Your task to perform on an android device: What's the weather going to be this weekend? Image 0: 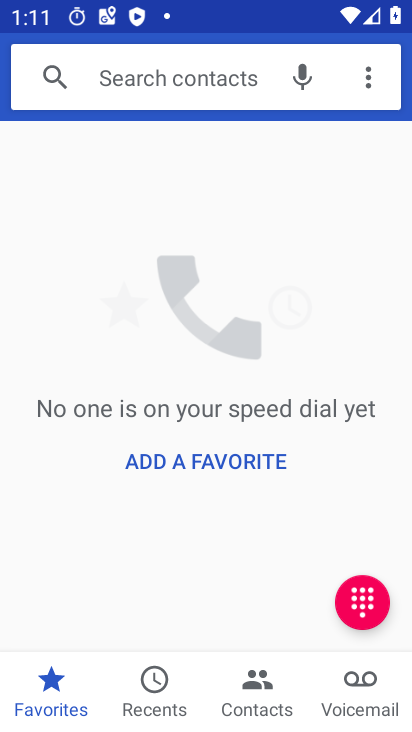
Step 0: press home button
Your task to perform on an android device: What's the weather going to be this weekend? Image 1: 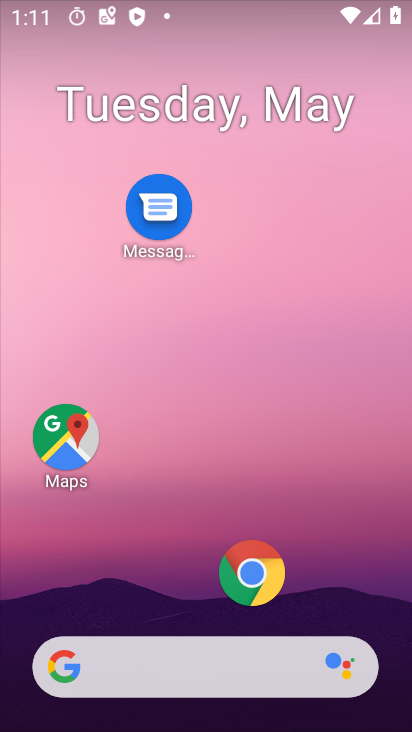
Step 1: drag from (193, 578) to (348, 15)
Your task to perform on an android device: What's the weather going to be this weekend? Image 2: 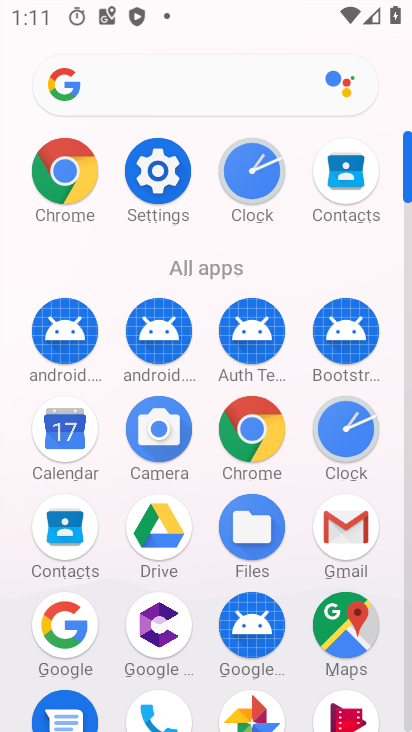
Step 2: click (205, 87)
Your task to perform on an android device: What's the weather going to be this weekend? Image 3: 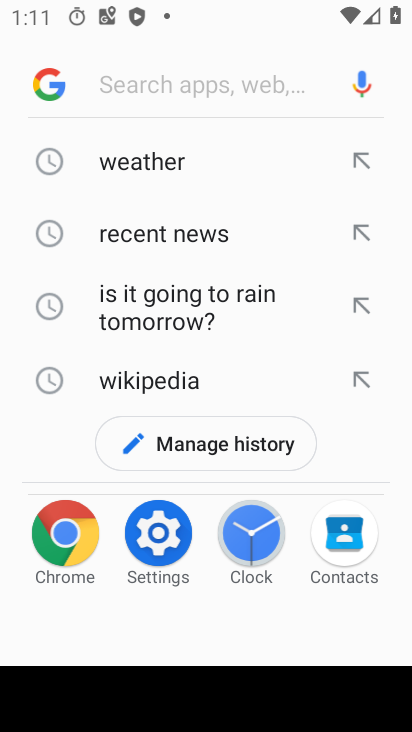
Step 3: click (151, 165)
Your task to perform on an android device: What's the weather going to be this weekend? Image 4: 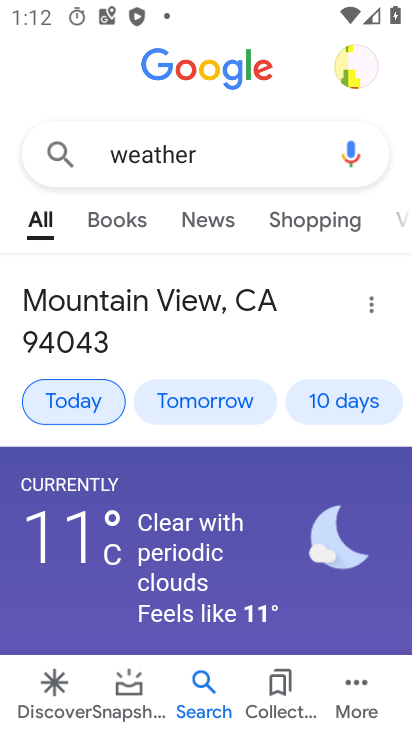
Step 4: drag from (217, 315) to (306, 6)
Your task to perform on an android device: What's the weather going to be this weekend? Image 5: 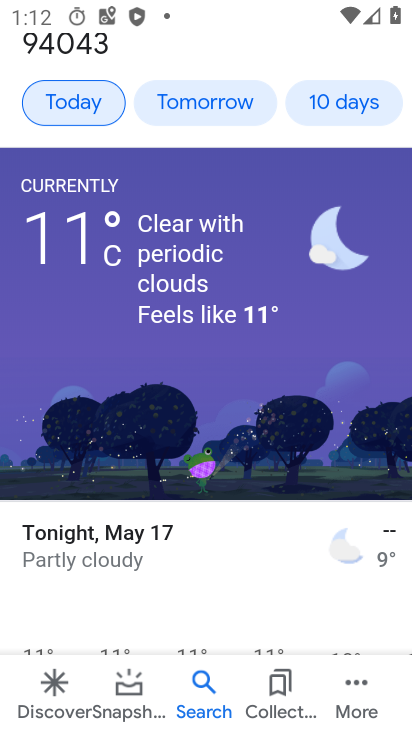
Step 5: drag from (329, 206) to (341, 290)
Your task to perform on an android device: What's the weather going to be this weekend? Image 6: 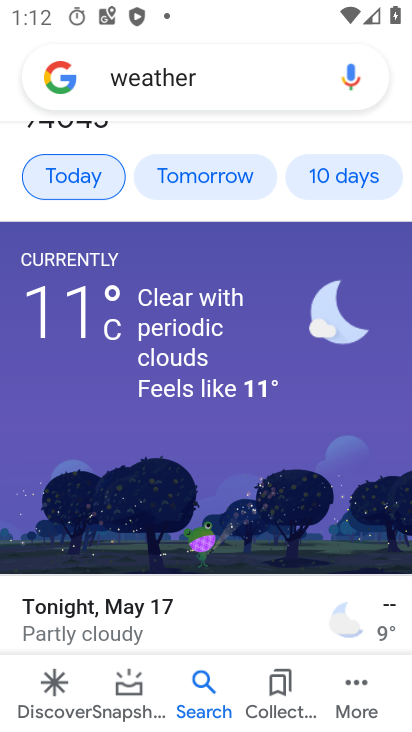
Step 6: click (344, 180)
Your task to perform on an android device: What's the weather going to be this weekend? Image 7: 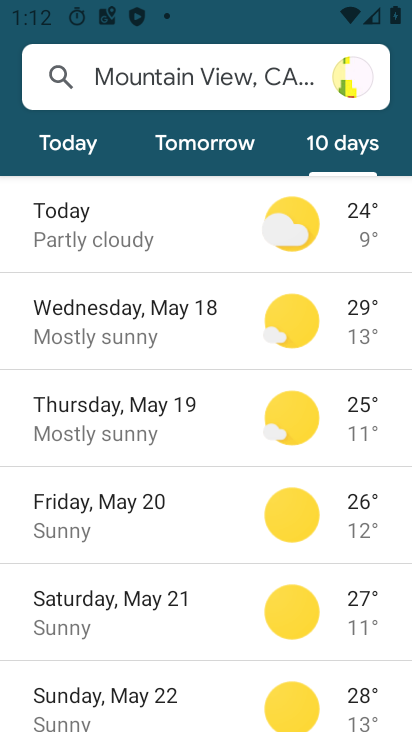
Step 7: task complete